Your task to perform on an android device: Open Youtube and go to "Your channel" Image 0: 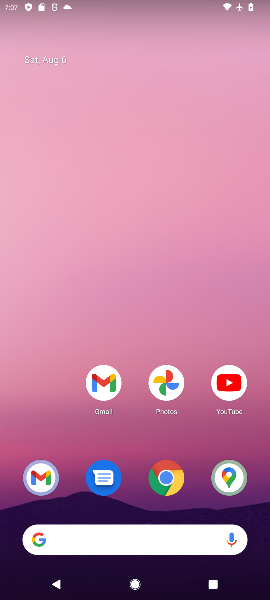
Step 0: click (230, 382)
Your task to perform on an android device: Open Youtube and go to "Your channel" Image 1: 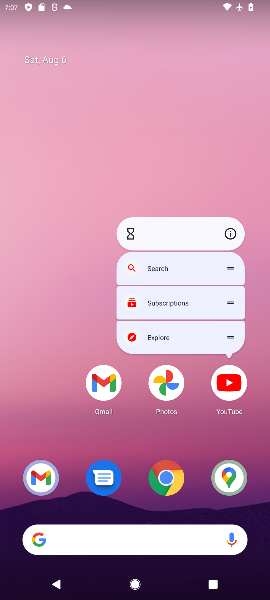
Step 1: click (226, 385)
Your task to perform on an android device: Open Youtube and go to "Your channel" Image 2: 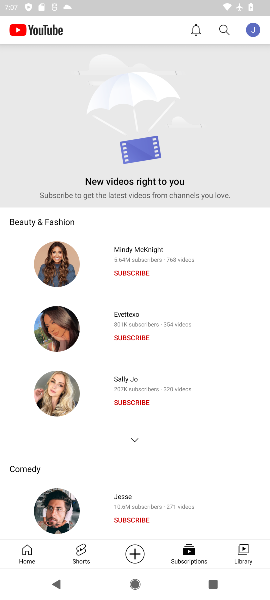
Step 2: click (252, 33)
Your task to perform on an android device: Open Youtube and go to "Your channel" Image 3: 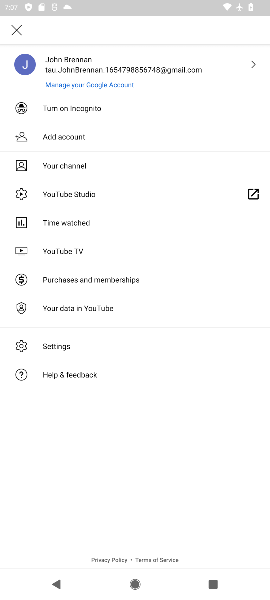
Step 3: click (60, 164)
Your task to perform on an android device: Open Youtube and go to "Your channel" Image 4: 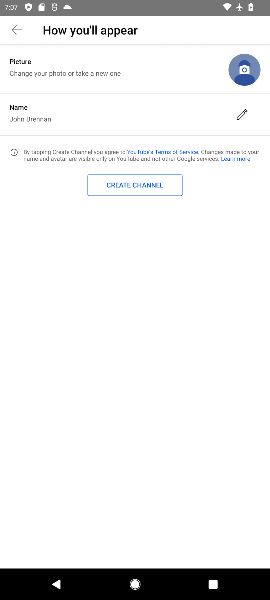
Step 4: task complete